Your task to perform on an android device: see sites visited before in the chrome app Image 0: 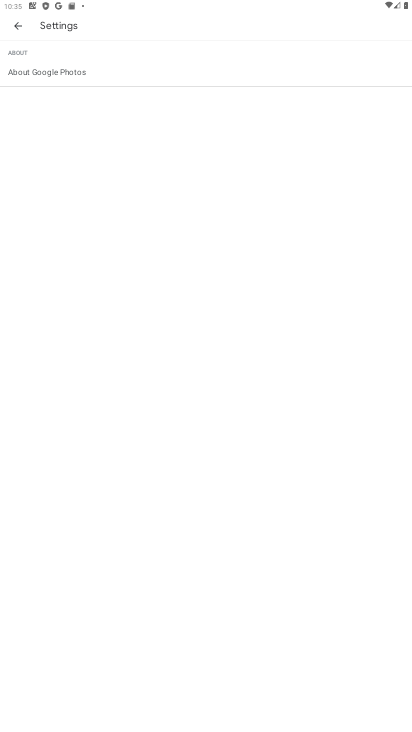
Step 0: press home button
Your task to perform on an android device: see sites visited before in the chrome app Image 1: 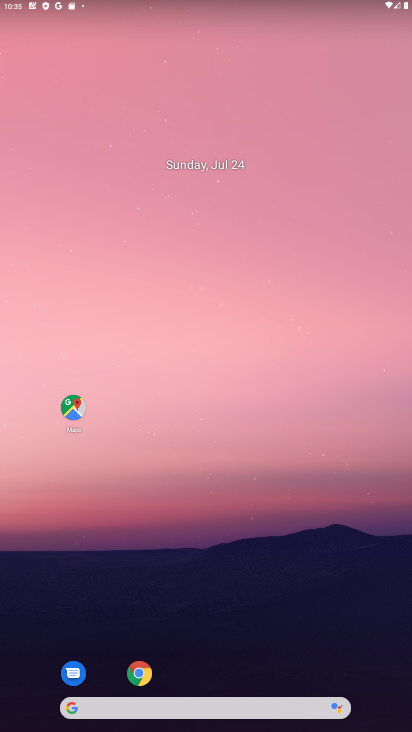
Step 1: click (113, 664)
Your task to perform on an android device: see sites visited before in the chrome app Image 2: 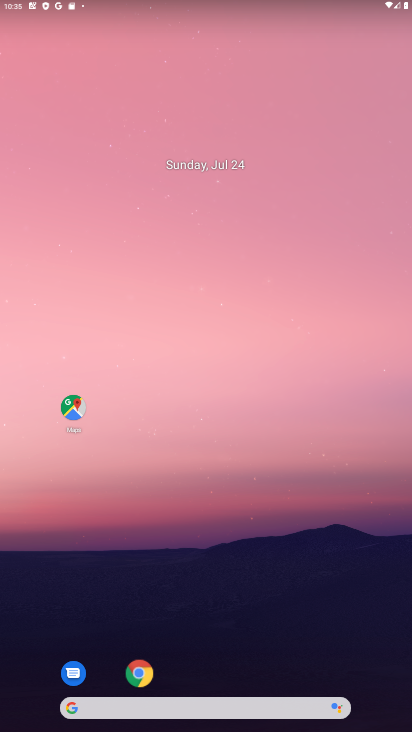
Step 2: click (140, 707)
Your task to perform on an android device: see sites visited before in the chrome app Image 3: 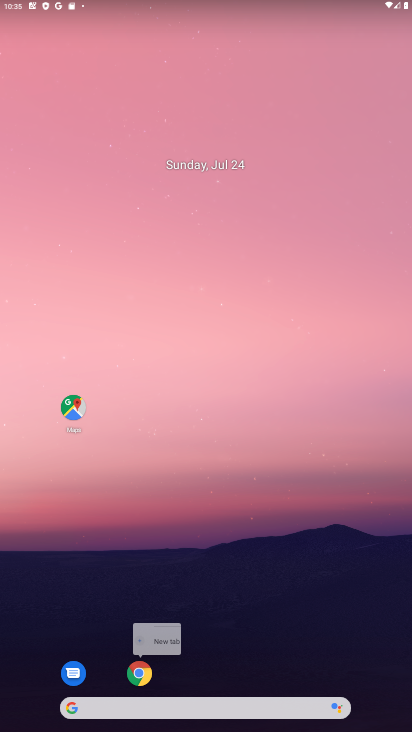
Step 3: click (138, 671)
Your task to perform on an android device: see sites visited before in the chrome app Image 4: 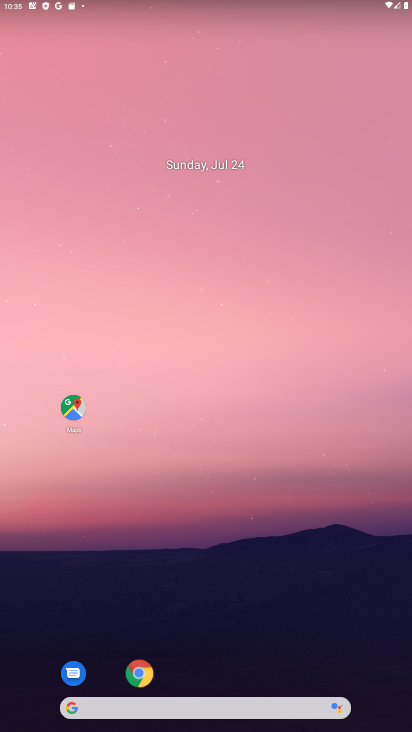
Step 4: click (138, 671)
Your task to perform on an android device: see sites visited before in the chrome app Image 5: 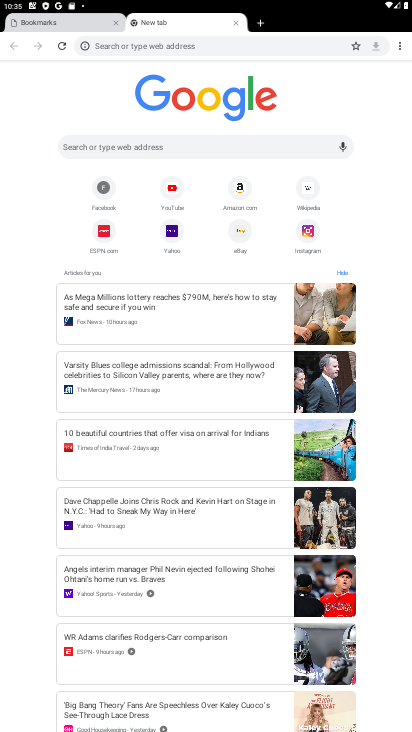
Step 5: click (395, 43)
Your task to perform on an android device: see sites visited before in the chrome app Image 6: 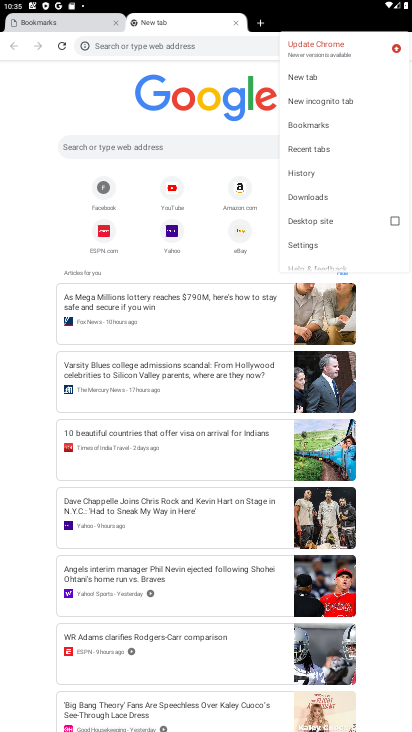
Step 6: click (305, 245)
Your task to perform on an android device: see sites visited before in the chrome app Image 7: 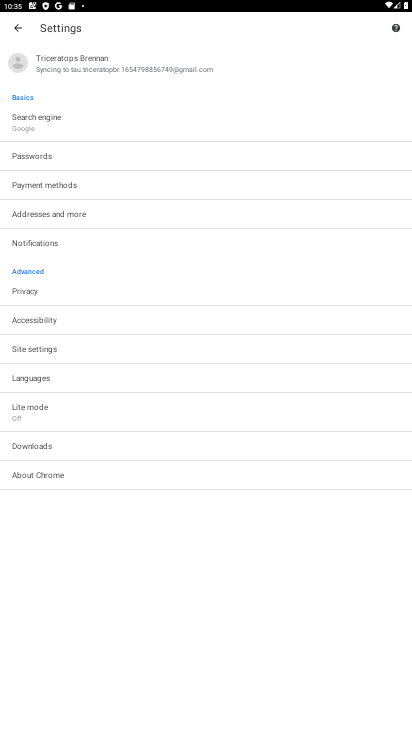
Step 7: click (5, 339)
Your task to perform on an android device: see sites visited before in the chrome app Image 8: 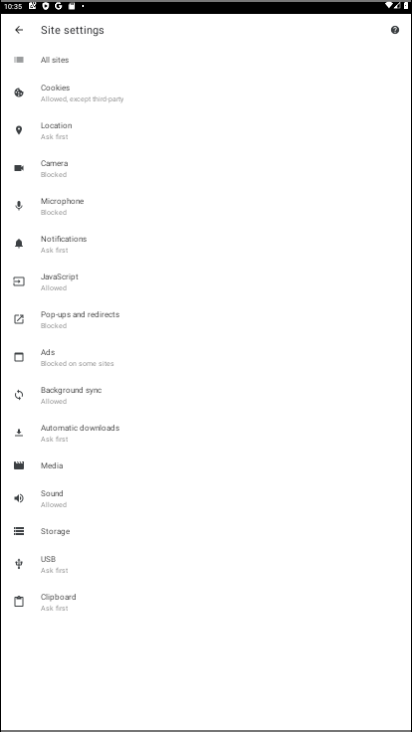
Step 8: click (30, 349)
Your task to perform on an android device: see sites visited before in the chrome app Image 9: 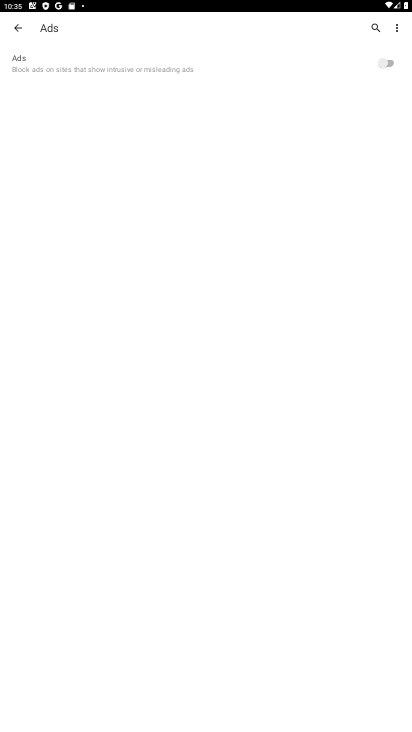
Step 9: click (18, 25)
Your task to perform on an android device: see sites visited before in the chrome app Image 10: 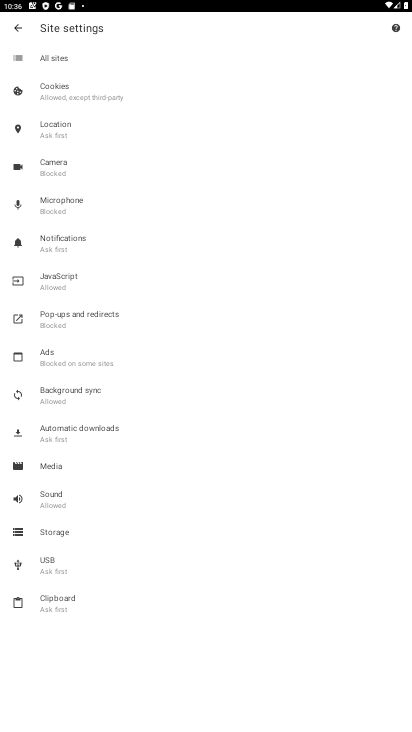
Step 10: task complete